Your task to perform on an android device: Go to Android settings Image 0: 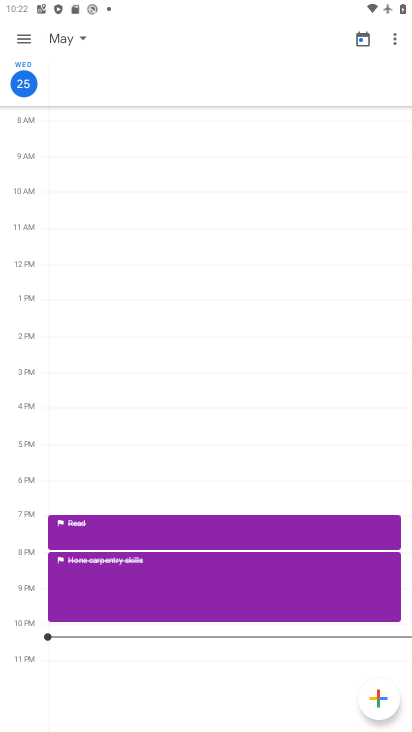
Step 0: press home button
Your task to perform on an android device: Go to Android settings Image 1: 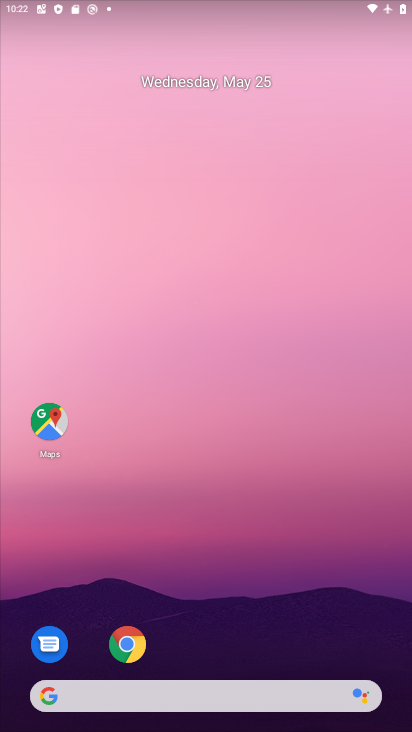
Step 1: drag from (226, 607) to (232, 131)
Your task to perform on an android device: Go to Android settings Image 2: 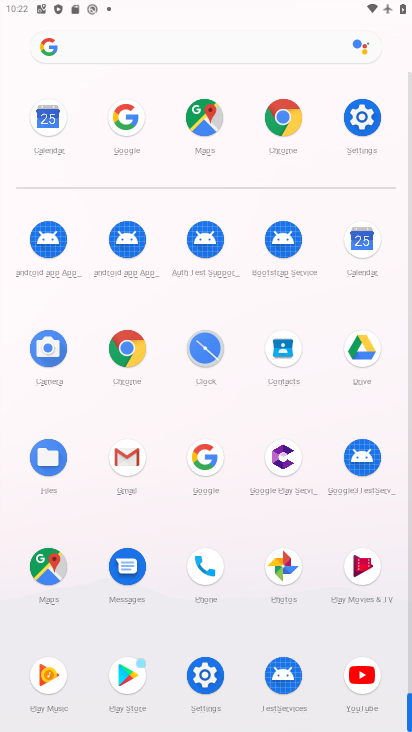
Step 2: click (360, 117)
Your task to perform on an android device: Go to Android settings Image 3: 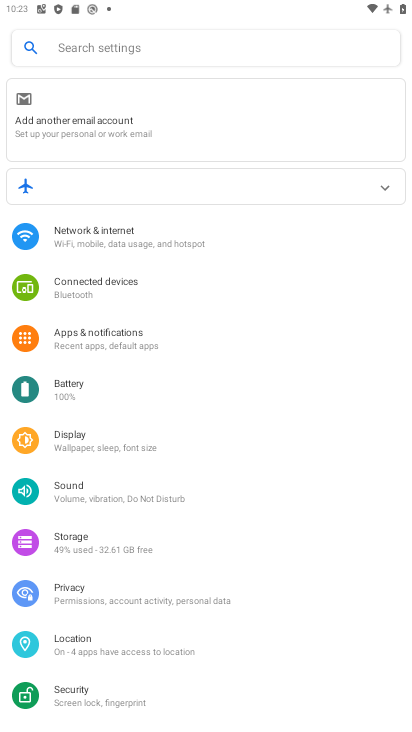
Step 3: task complete